Your task to perform on an android device: Open Youtube and go to "Your channel" Image 0: 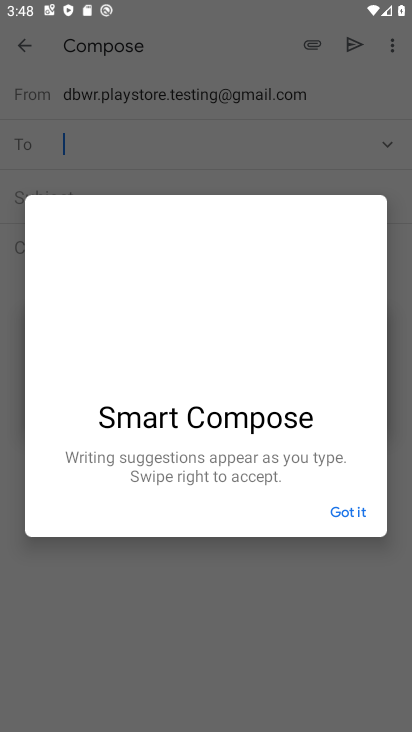
Step 0: press home button
Your task to perform on an android device: Open Youtube and go to "Your channel" Image 1: 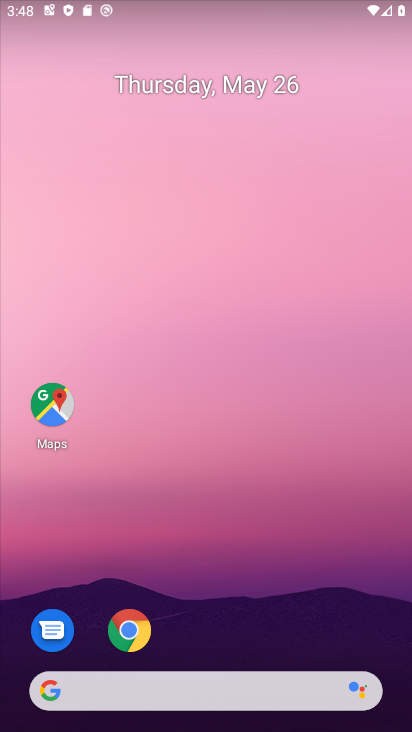
Step 1: drag from (274, 610) to (199, 58)
Your task to perform on an android device: Open Youtube and go to "Your channel" Image 2: 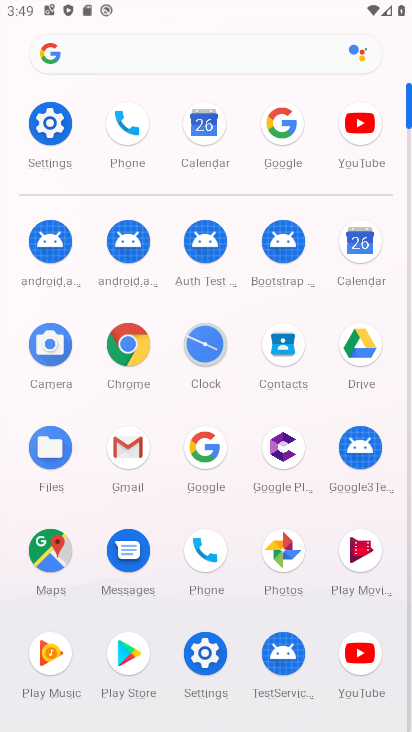
Step 2: drag from (316, 586) to (314, 361)
Your task to perform on an android device: Open Youtube and go to "Your channel" Image 3: 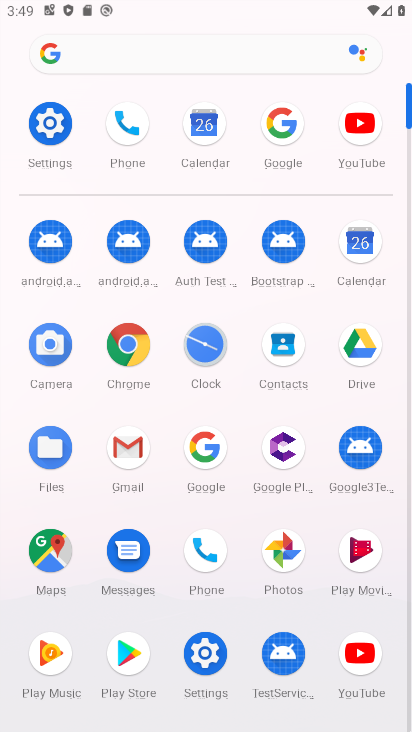
Step 3: click (359, 653)
Your task to perform on an android device: Open Youtube and go to "Your channel" Image 4: 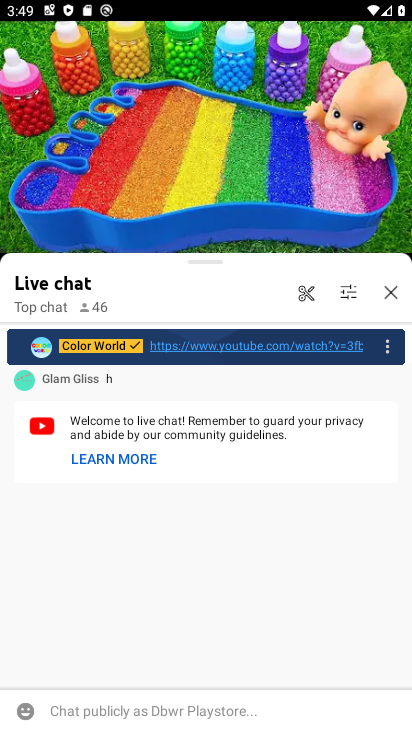
Step 4: press back button
Your task to perform on an android device: Open Youtube and go to "Your channel" Image 5: 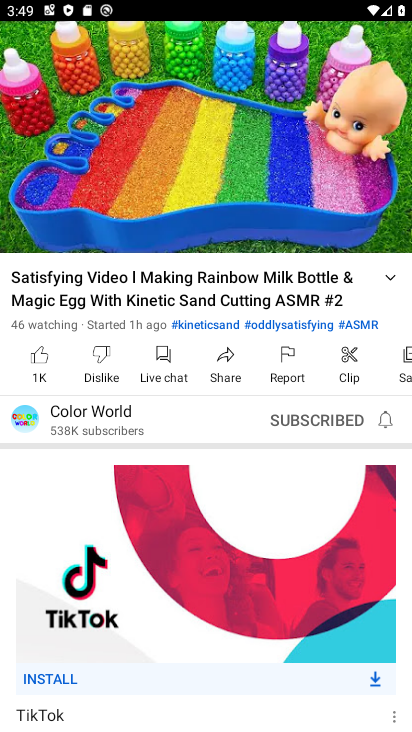
Step 5: press back button
Your task to perform on an android device: Open Youtube and go to "Your channel" Image 6: 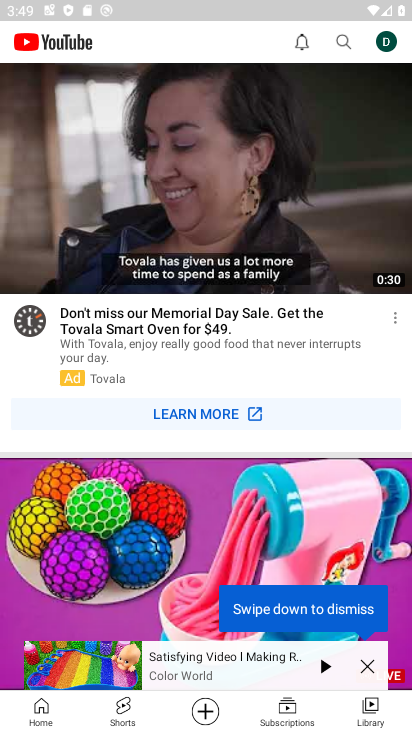
Step 6: click (388, 37)
Your task to perform on an android device: Open Youtube and go to "Your channel" Image 7: 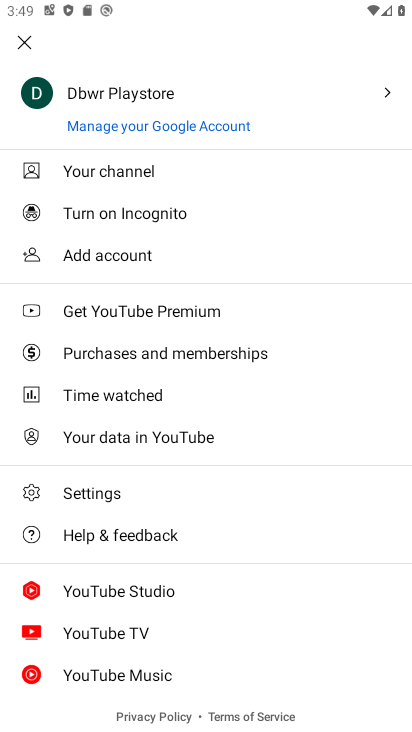
Step 7: click (147, 166)
Your task to perform on an android device: Open Youtube and go to "Your channel" Image 8: 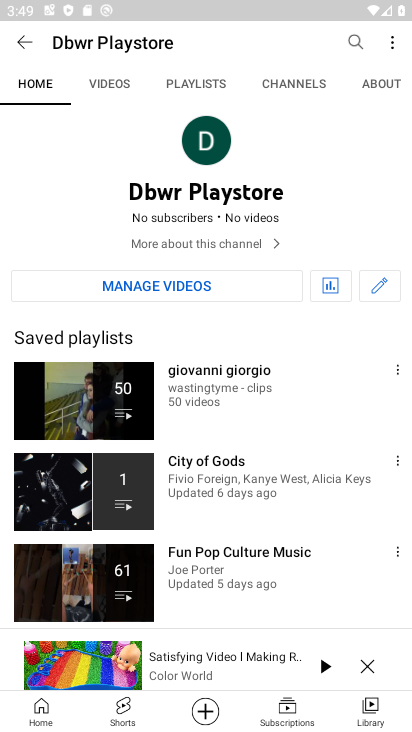
Step 8: task complete